Your task to perform on an android device: Search for duracell triple a on bestbuy, select the first entry, add it to the cart, then select checkout. Image 0: 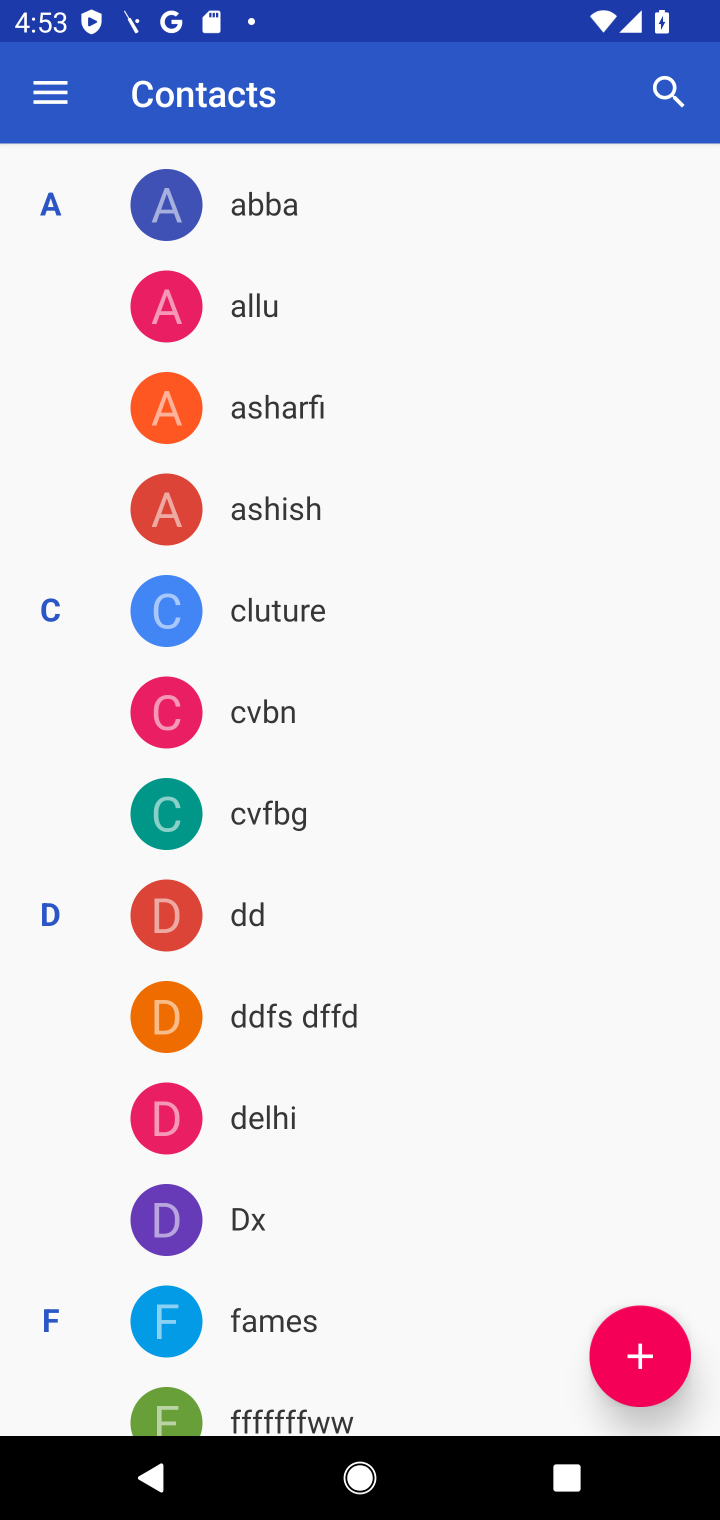
Step 0: press home button
Your task to perform on an android device: Search for duracell triple a on bestbuy, select the first entry, add it to the cart, then select checkout. Image 1: 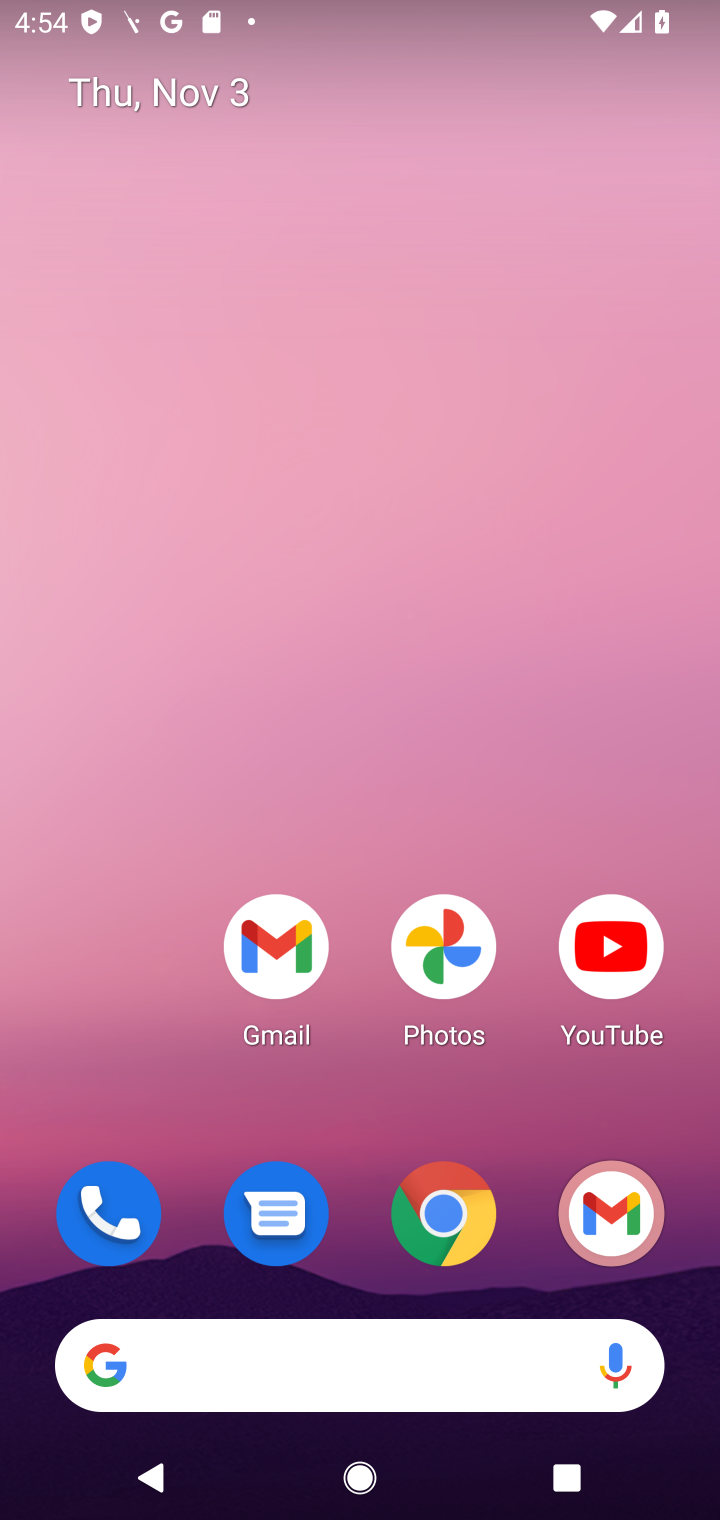
Step 1: click (459, 1218)
Your task to perform on an android device: Search for duracell triple a on bestbuy, select the first entry, add it to the cart, then select checkout. Image 2: 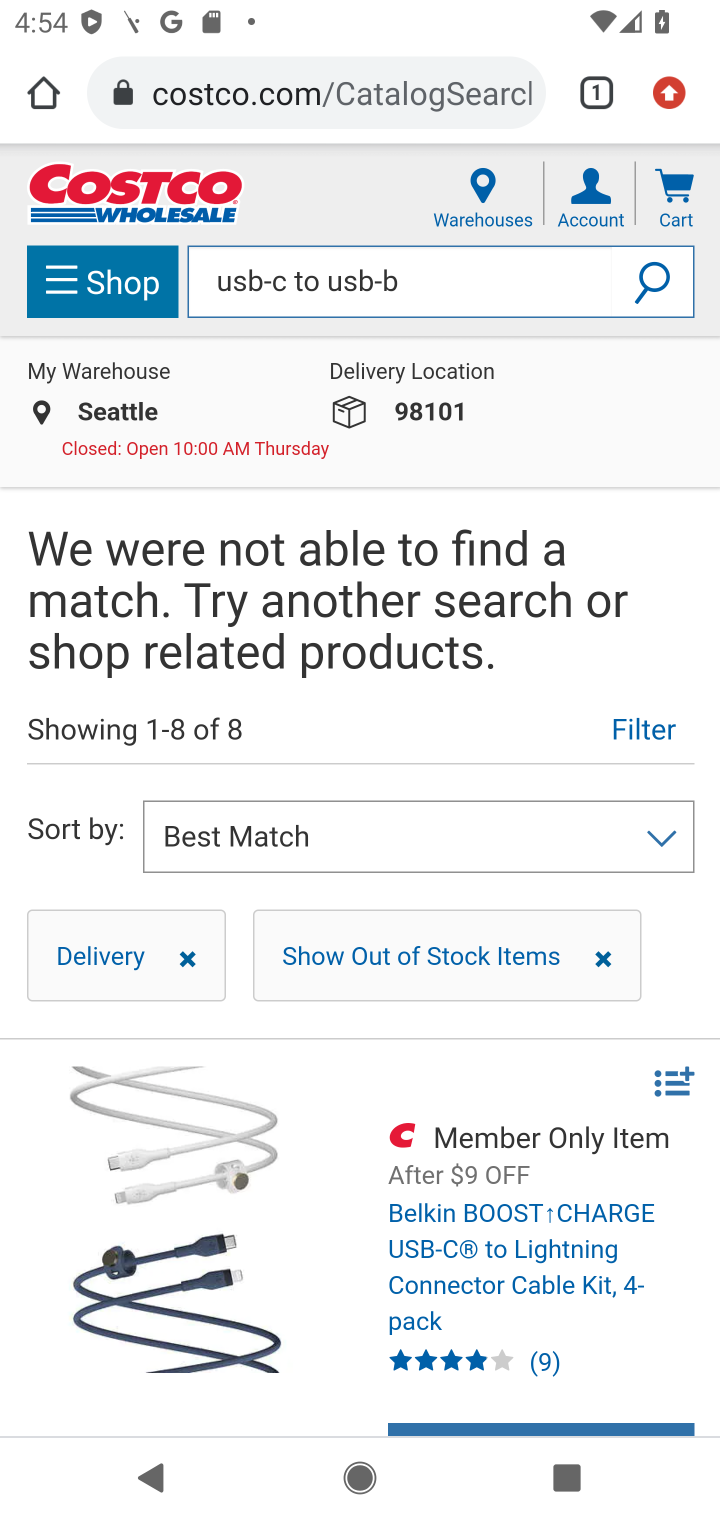
Step 2: click (358, 84)
Your task to perform on an android device: Search for duracell triple a on bestbuy, select the first entry, add it to the cart, then select checkout. Image 3: 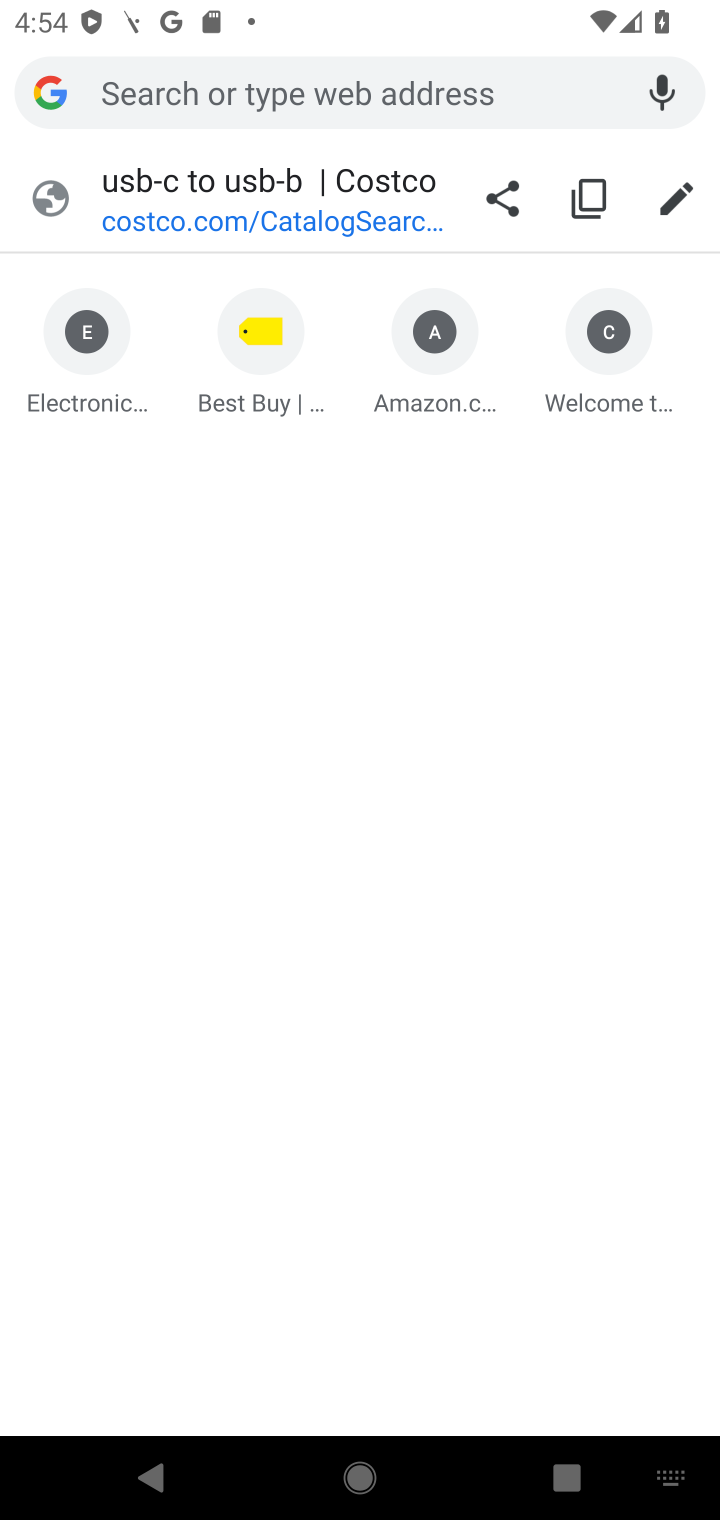
Step 3: type "bestbuy.com"
Your task to perform on an android device: Search for duracell triple a on bestbuy, select the first entry, add it to the cart, then select checkout. Image 4: 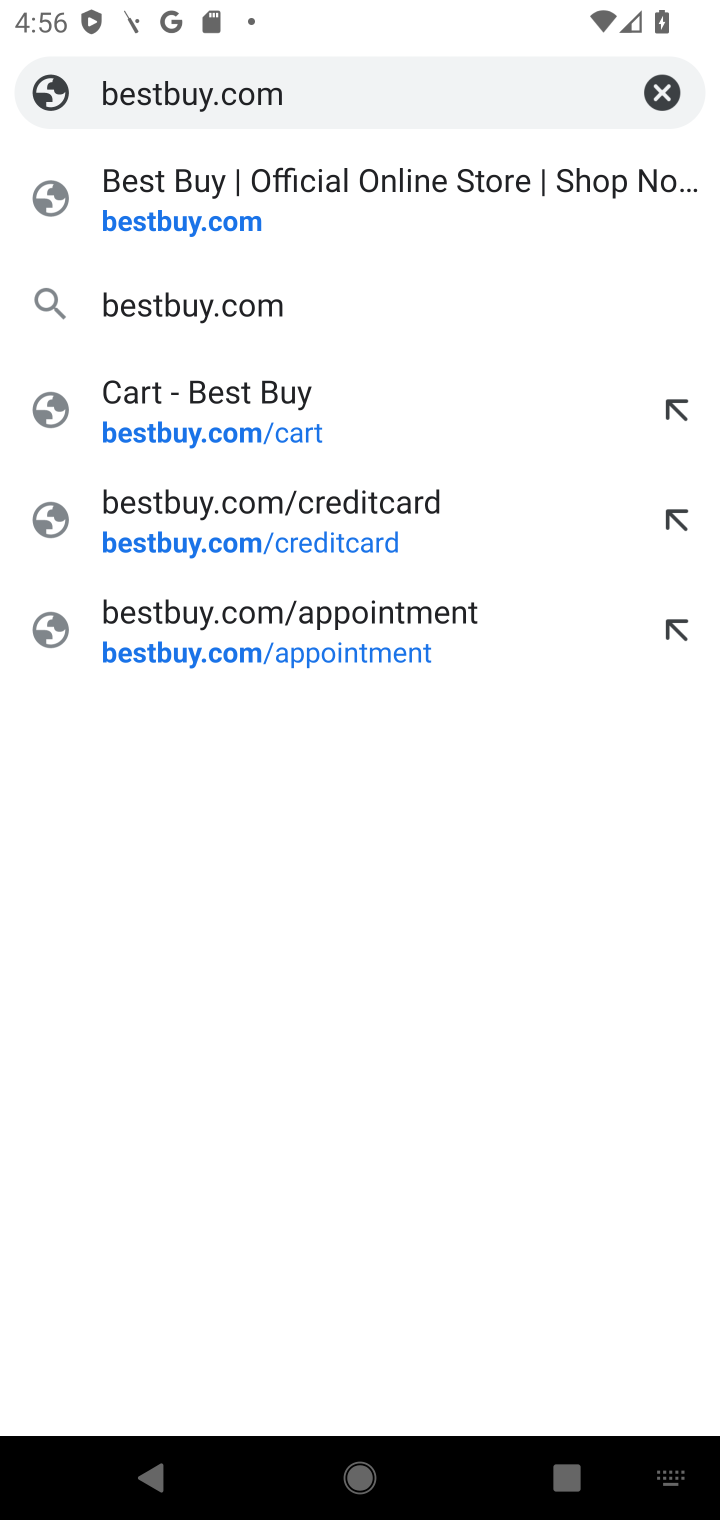
Step 4: click (190, 217)
Your task to perform on an android device: Search for duracell triple a on bestbuy, select the first entry, add it to the cart, then select checkout. Image 5: 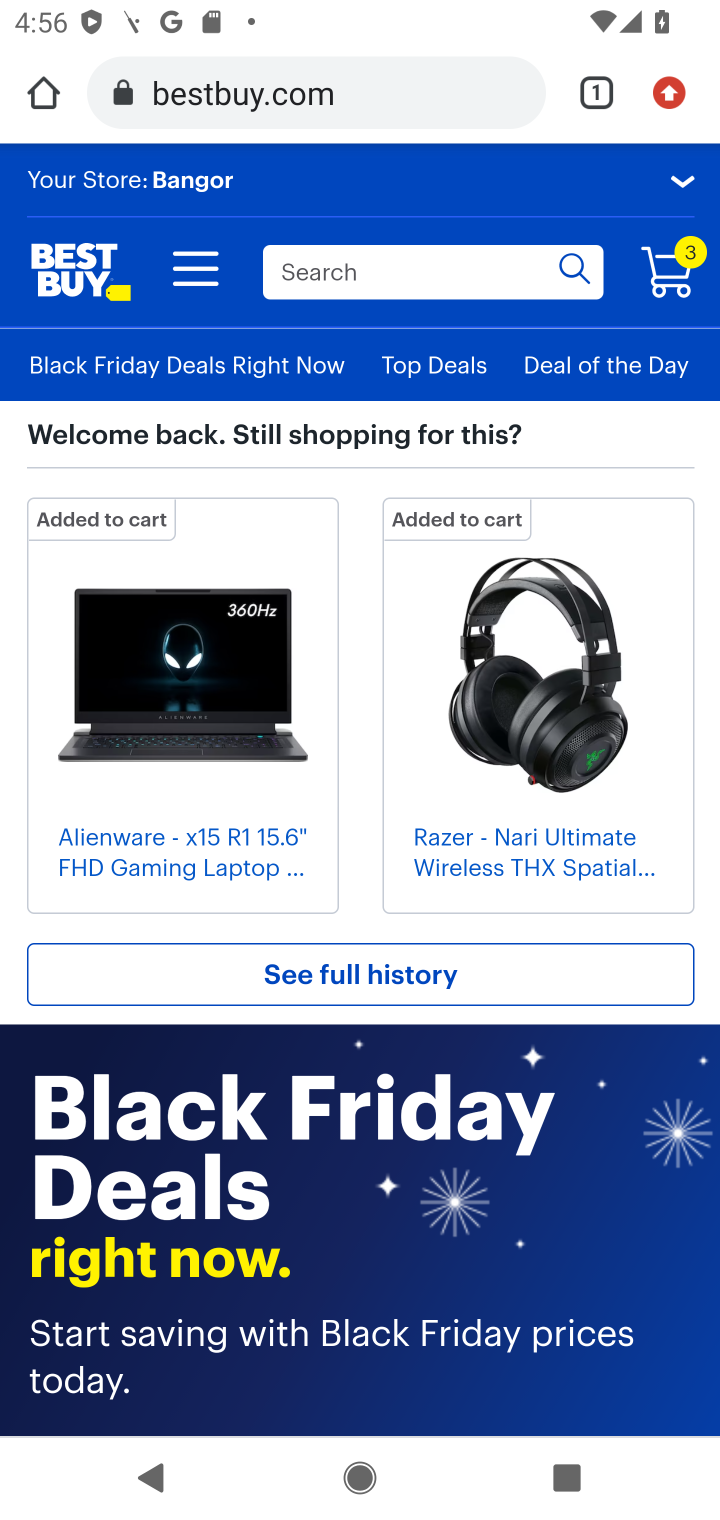
Step 5: click (351, 270)
Your task to perform on an android device: Search for duracell triple a on bestbuy, select the first entry, add it to the cart, then select checkout. Image 6: 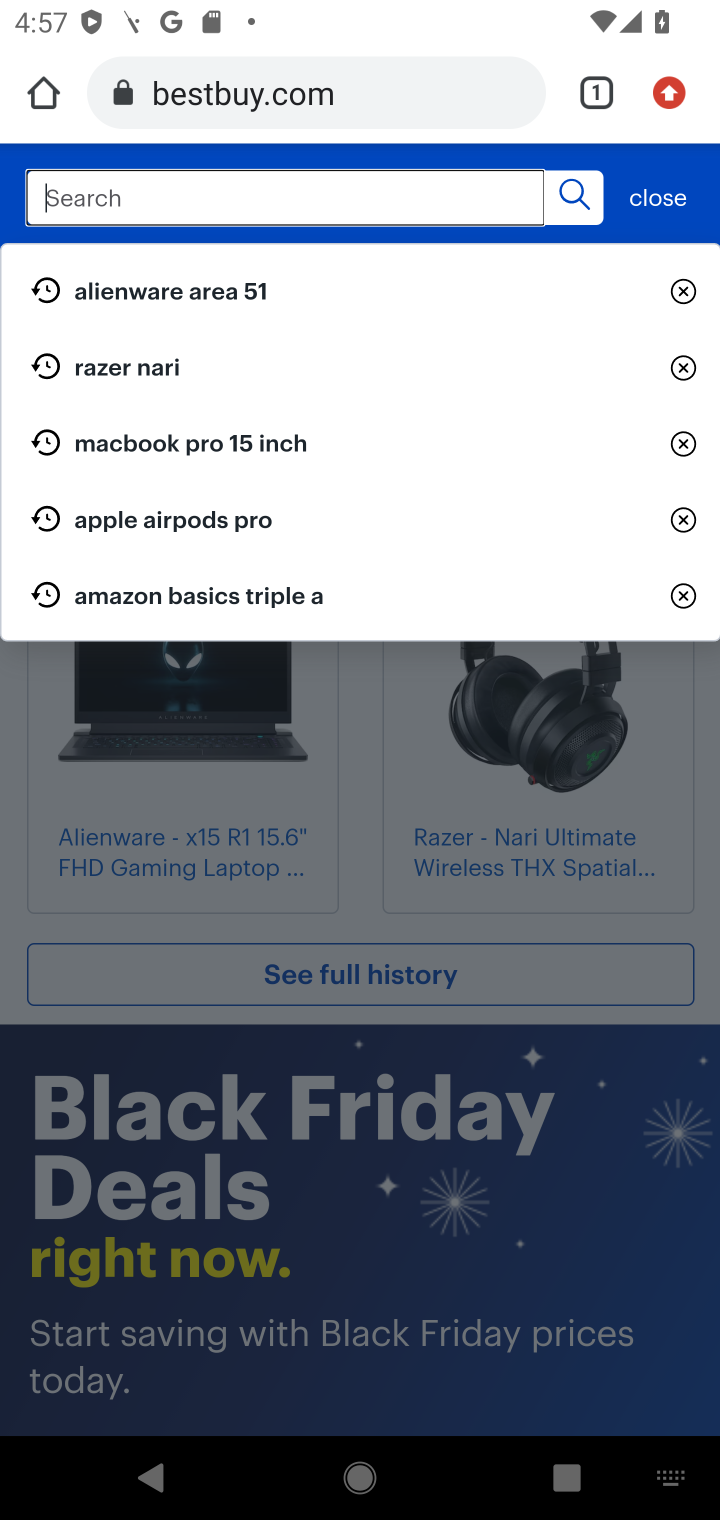
Step 6: click (231, 195)
Your task to perform on an android device: Search for duracell triple a on bestbuy, select the first entry, add it to the cart, then select checkout. Image 7: 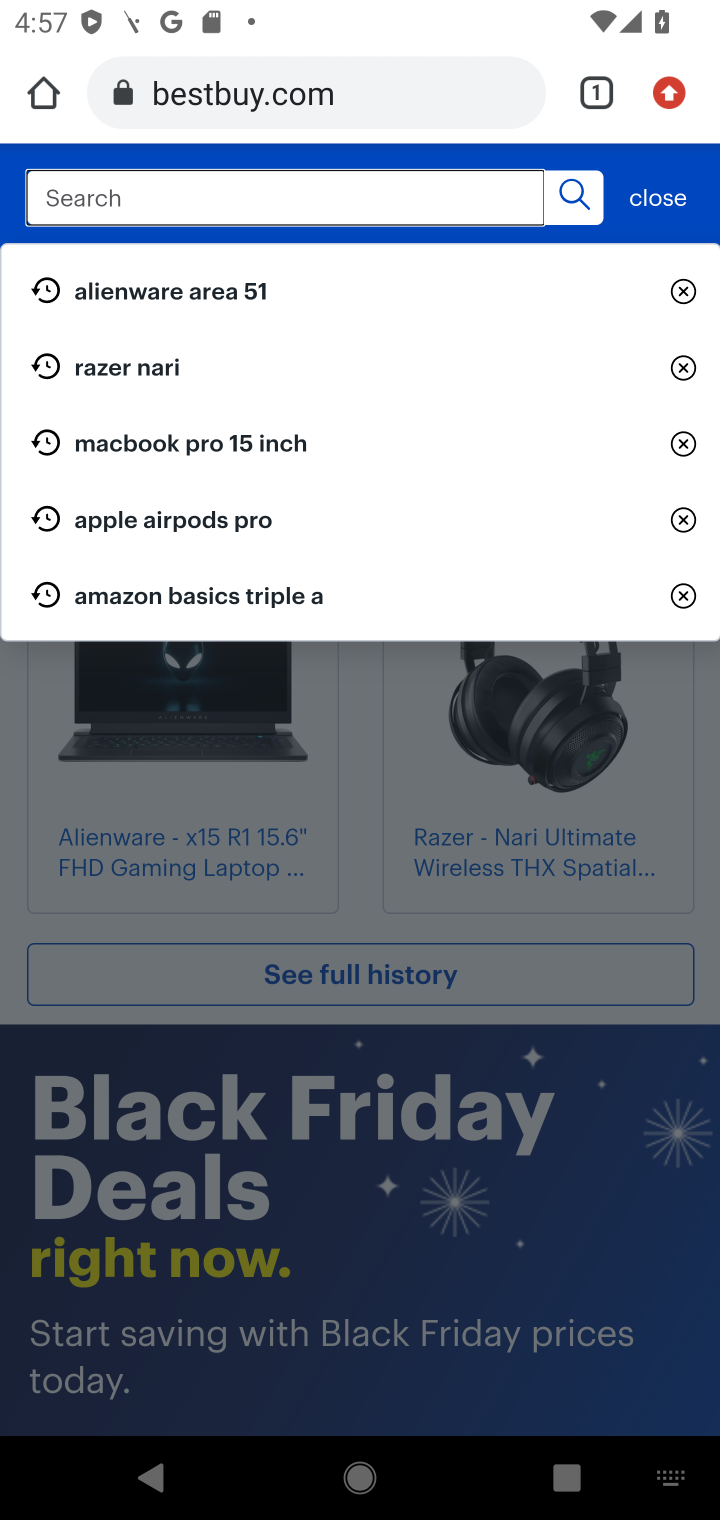
Step 7: type "duracell triple a"
Your task to perform on an android device: Search for duracell triple a on bestbuy, select the first entry, add it to the cart, then select checkout. Image 8: 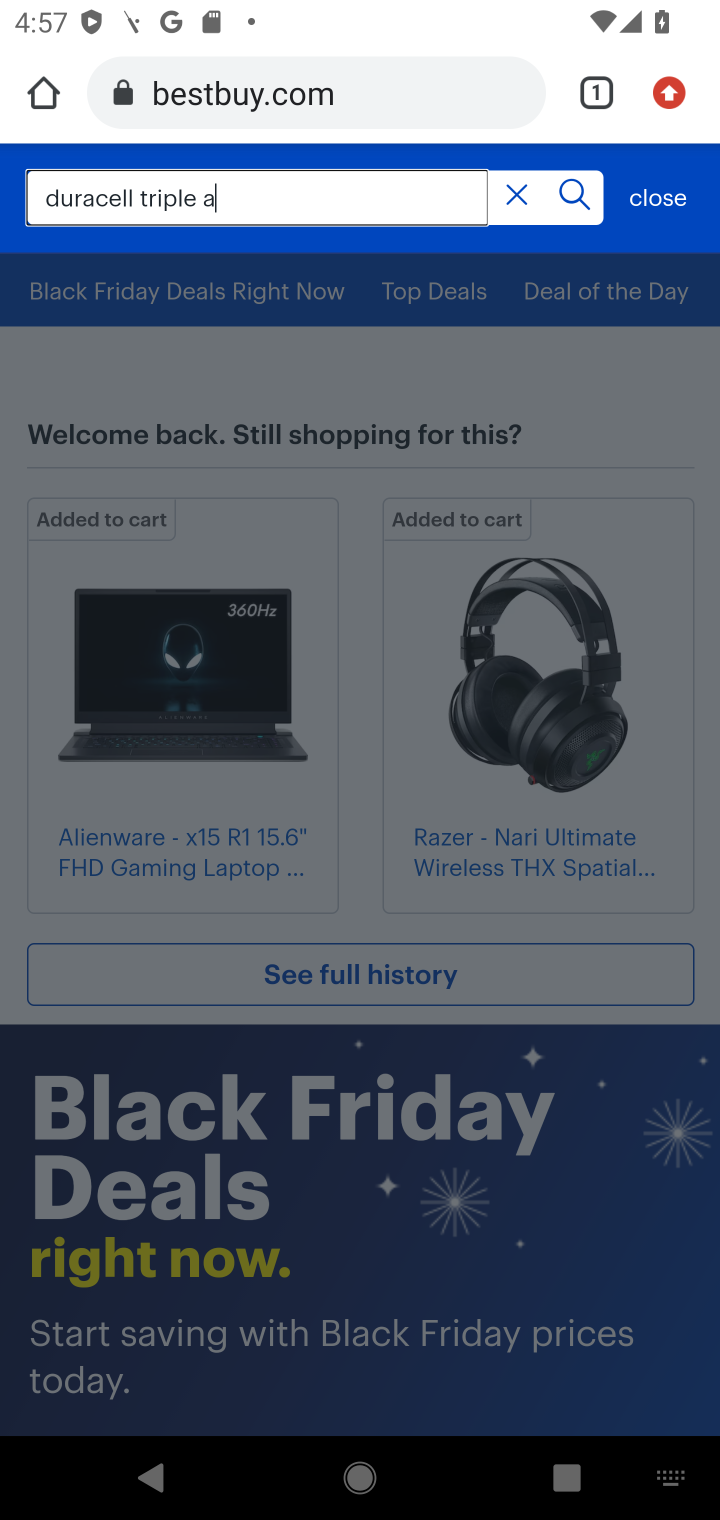
Step 8: click (575, 181)
Your task to perform on an android device: Search for duracell triple a on bestbuy, select the first entry, add it to the cart, then select checkout. Image 9: 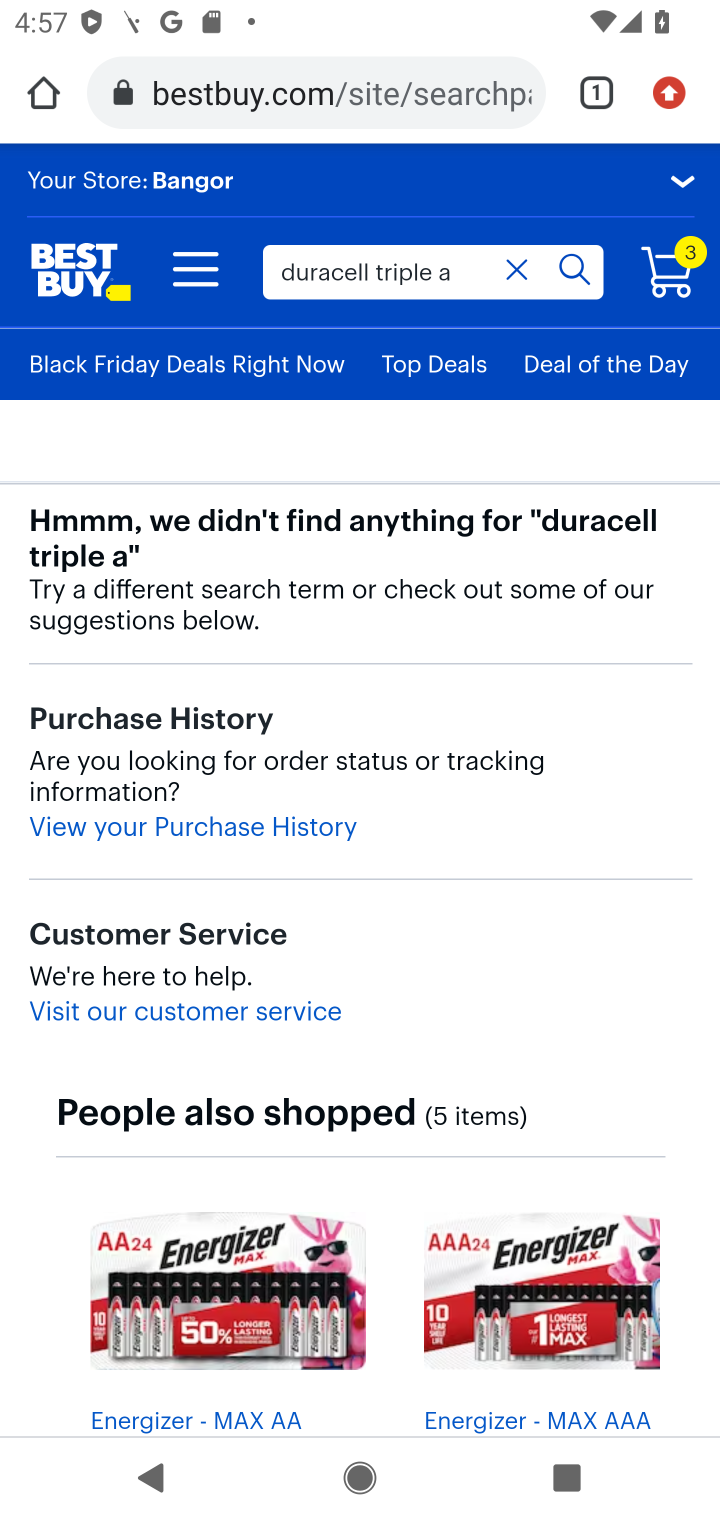
Step 9: task complete